Your task to perform on an android device: Open Amazon Image 0: 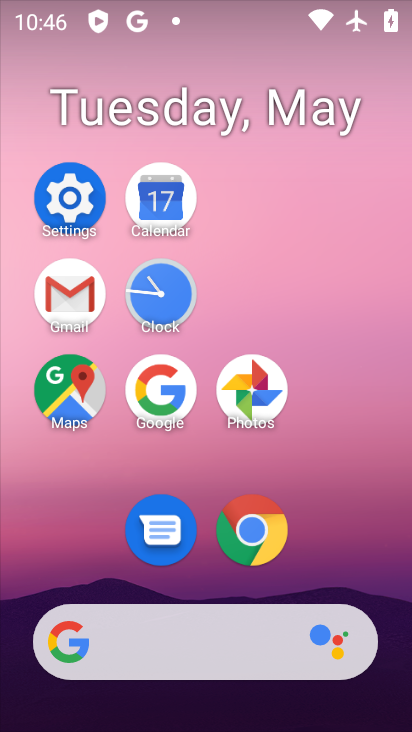
Step 0: click (233, 527)
Your task to perform on an android device: Open Amazon Image 1: 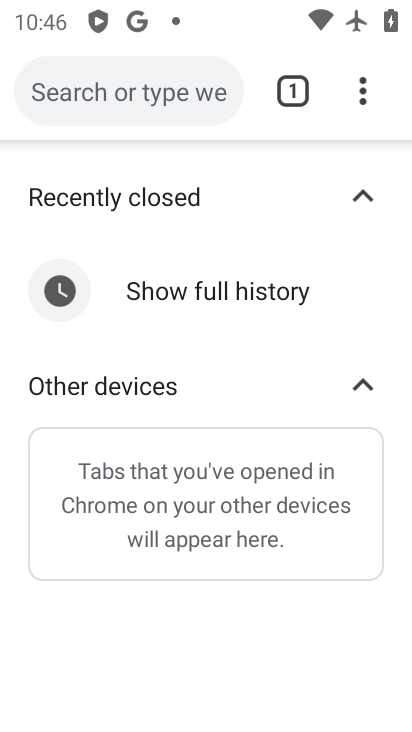
Step 1: click (303, 98)
Your task to perform on an android device: Open Amazon Image 2: 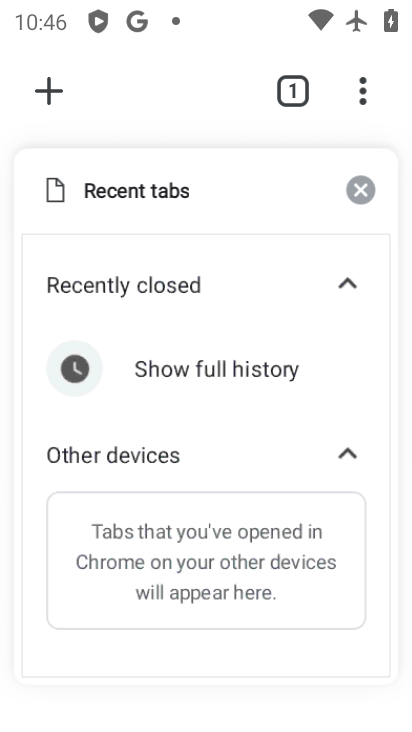
Step 2: click (82, 89)
Your task to perform on an android device: Open Amazon Image 3: 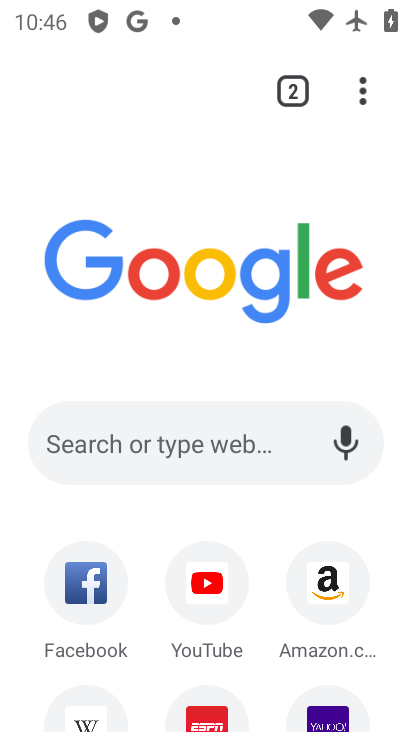
Step 3: click (319, 581)
Your task to perform on an android device: Open Amazon Image 4: 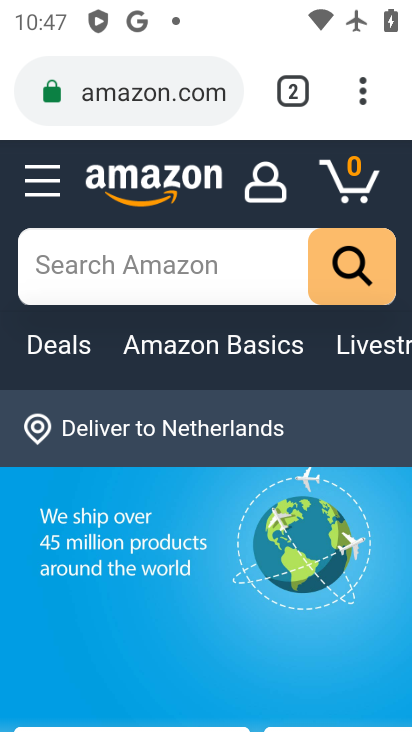
Step 4: task complete